Your task to perform on an android device: What's on my calendar tomorrow? Image 0: 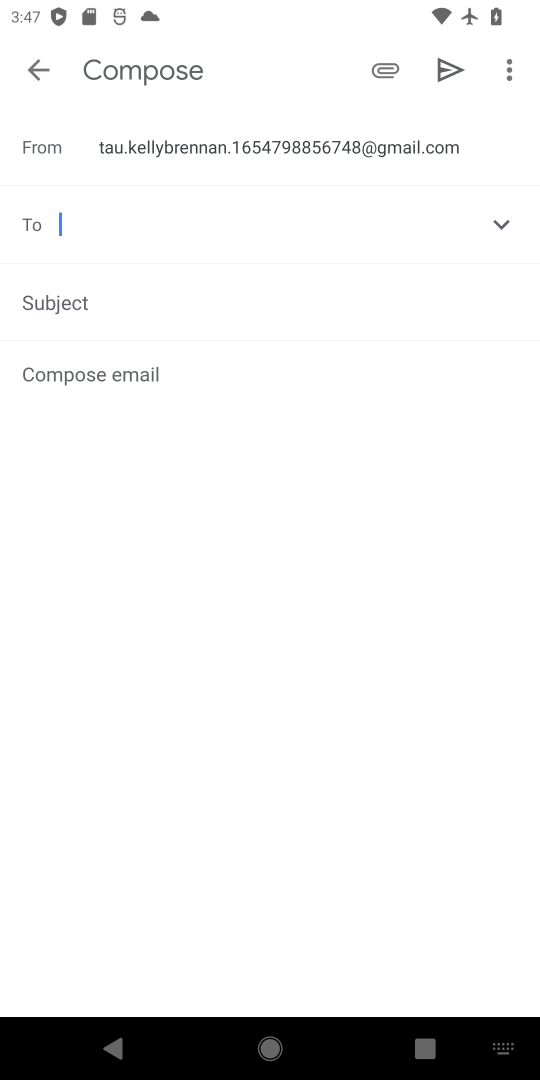
Step 0: press home button
Your task to perform on an android device: What's on my calendar tomorrow? Image 1: 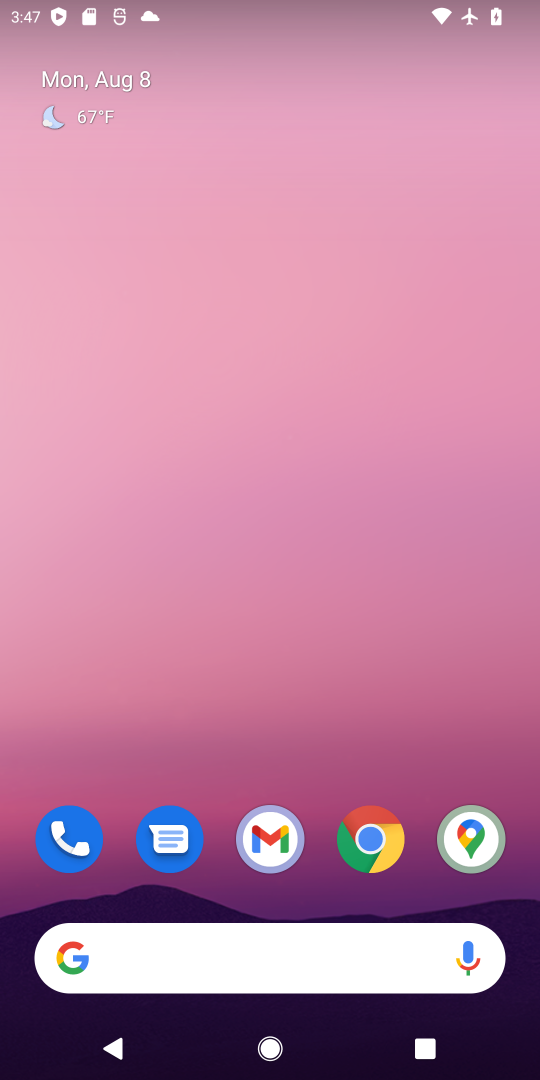
Step 1: drag from (421, 748) to (433, 268)
Your task to perform on an android device: What's on my calendar tomorrow? Image 2: 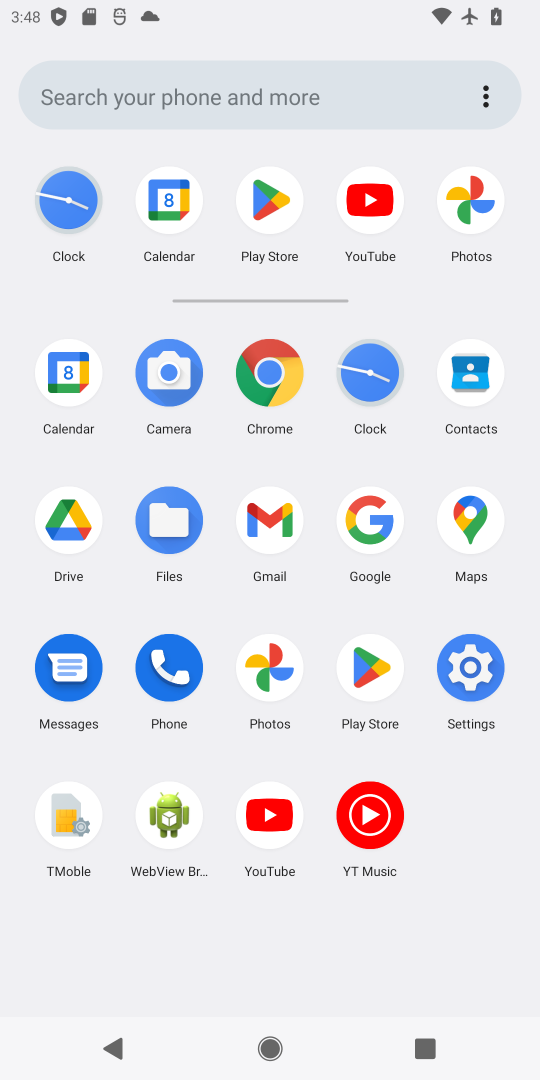
Step 2: click (73, 370)
Your task to perform on an android device: What's on my calendar tomorrow? Image 3: 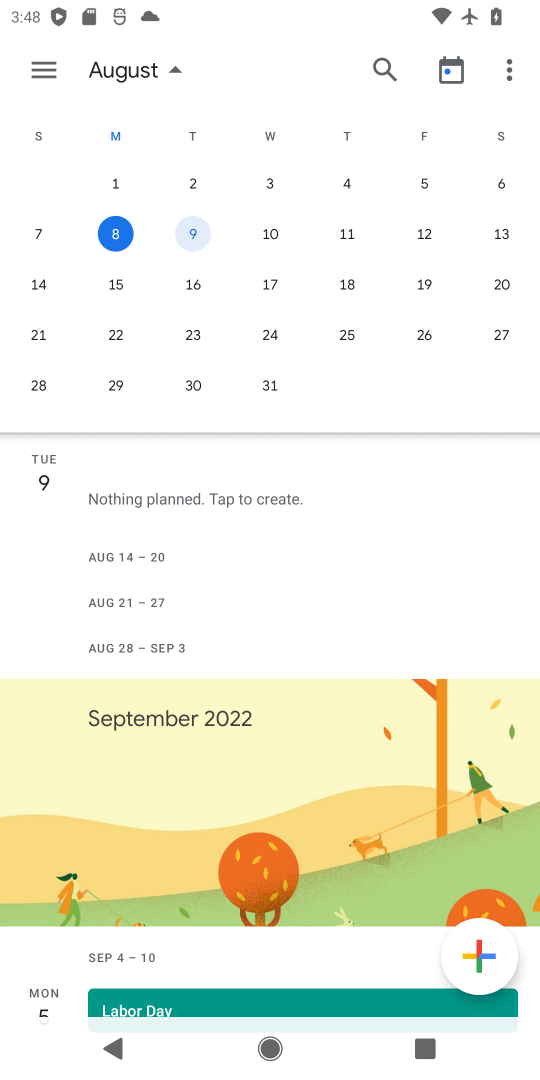
Step 3: click (196, 242)
Your task to perform on an android device: What's on my calendar tomorrow? Image 4: 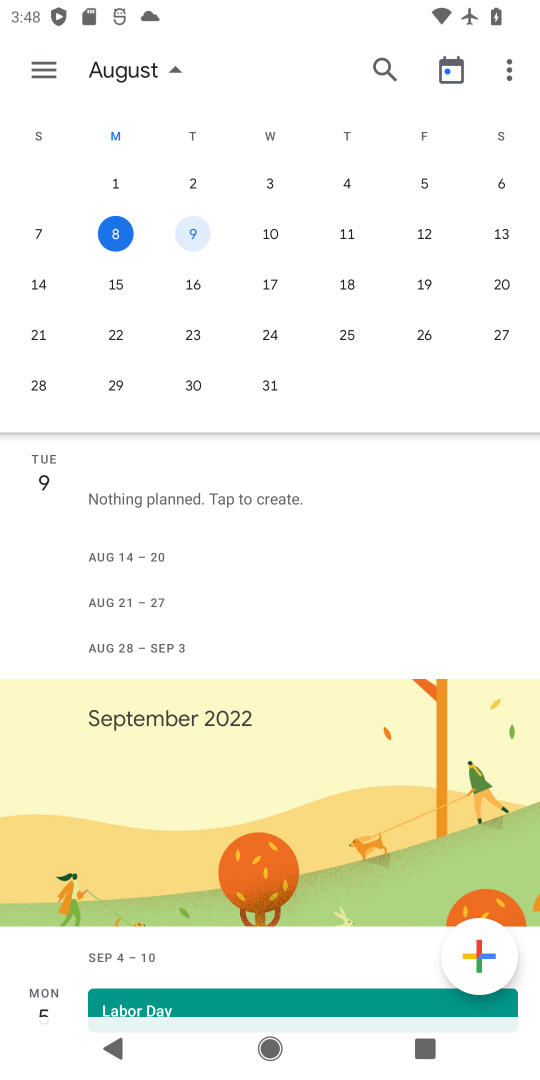
Step 4: task complete